Your task to perform on an android device: What's on my calendar tomorrow? Image 0: 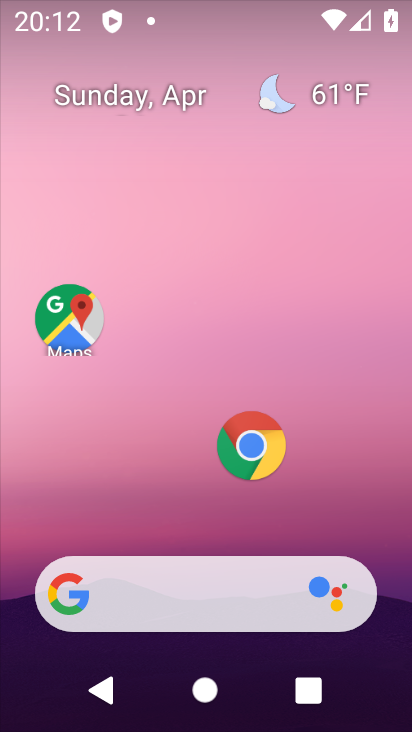
Step 0: drag from (196, 500) to (211, 141)
Your task to perform on an android device: What's on my calendar tomorrow? Image 1: 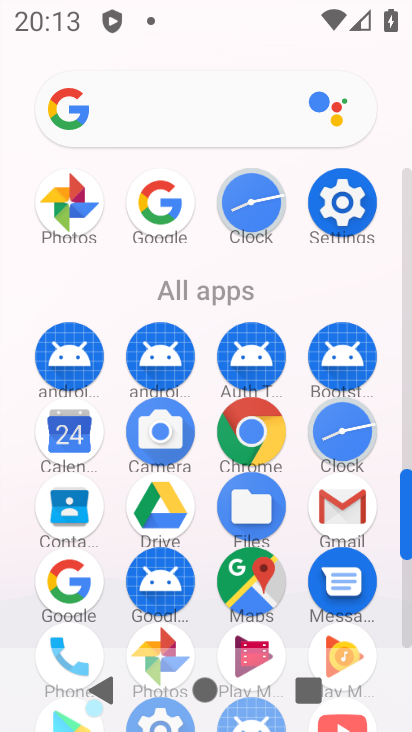
Step 1: click (70, 432)
Your task to perform on an android device: What's on my calendar tomorrow? Image 2: 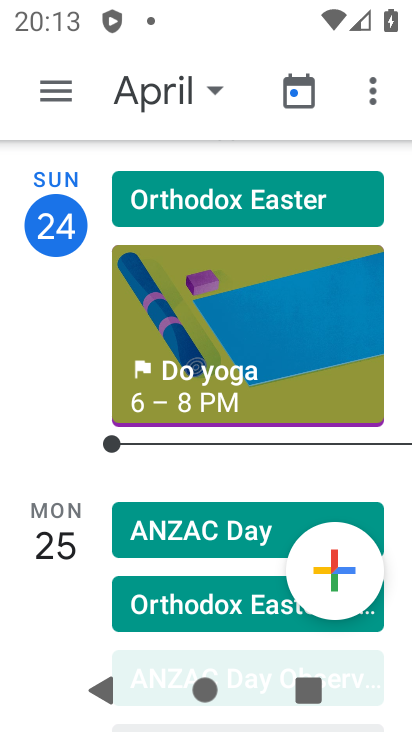
Step 2: click (185, 104)
Your task to perform on an android device: What's on my calendar tomorrow? Image 3: 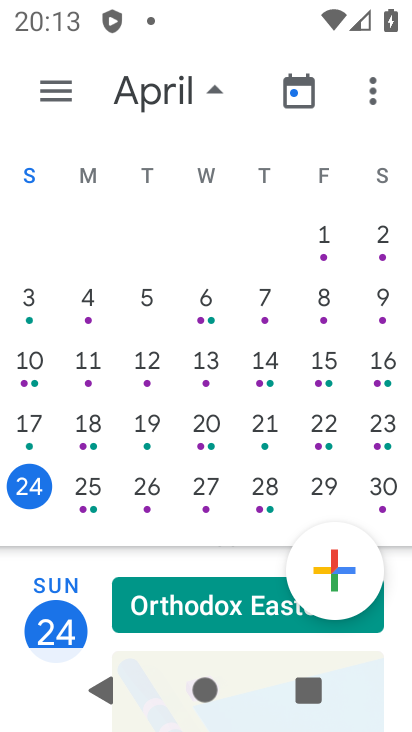
Step 3: click (81, 479)
Your task to perform on an android device: What's on my calendar tomorrow? Image 4: 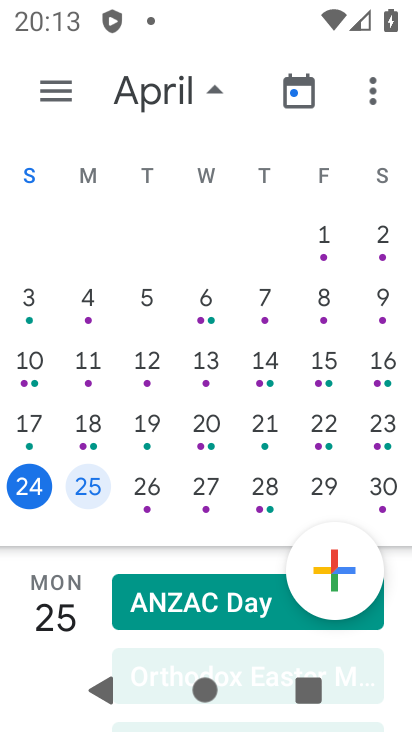
Step 4: click (94, 474)
Your task to perform on an android device: What's on my calendar tomorrow? Image 5: 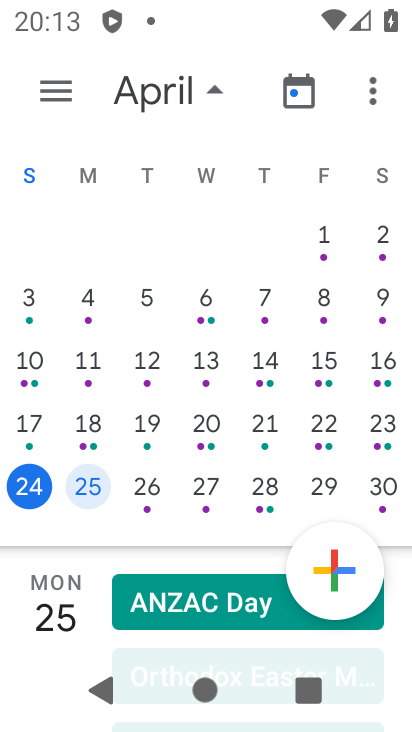
Step 5: task complete